Your task to perform on an android device: turn on notifications settings in the gmail app Image 0: 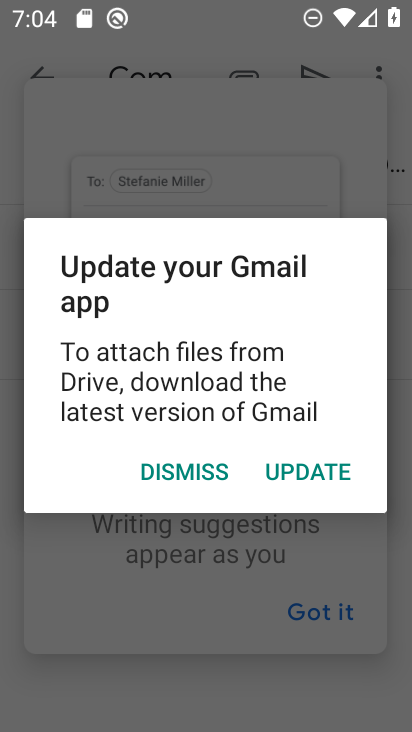
Step 0: press home button
Your task to perform on an android device: turn on notifications settings in the gmail app Image 1: 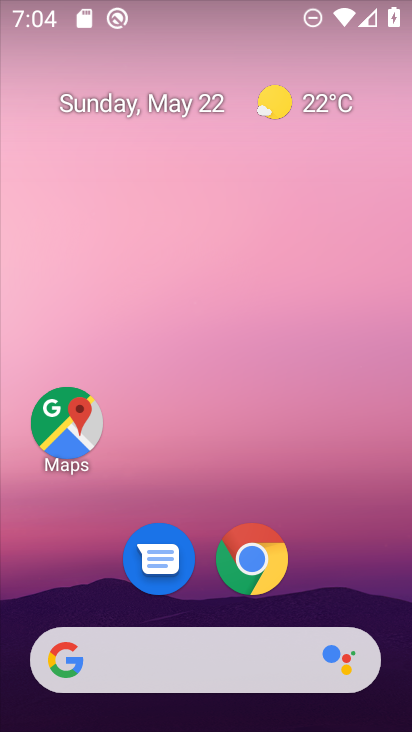
Step 1: drag from (206, 542) to (110, 118)
Your task to perform on an android device: turn on notifications settings in the gmail app Image 2: 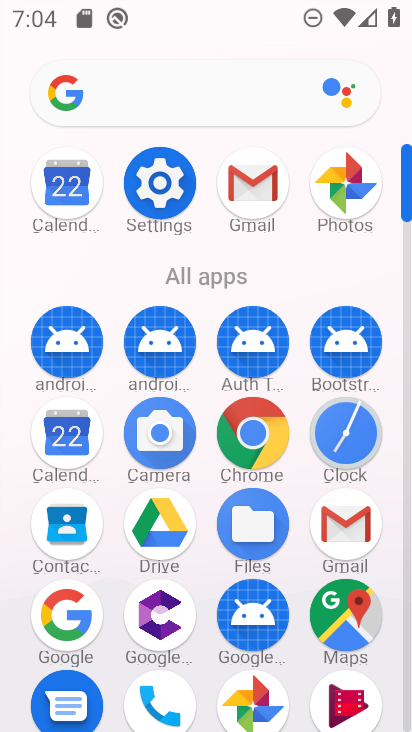
Step 2: click (356, 514)
Your task to perform on an android device: turn on notifications settings in the gmail app Image 3: 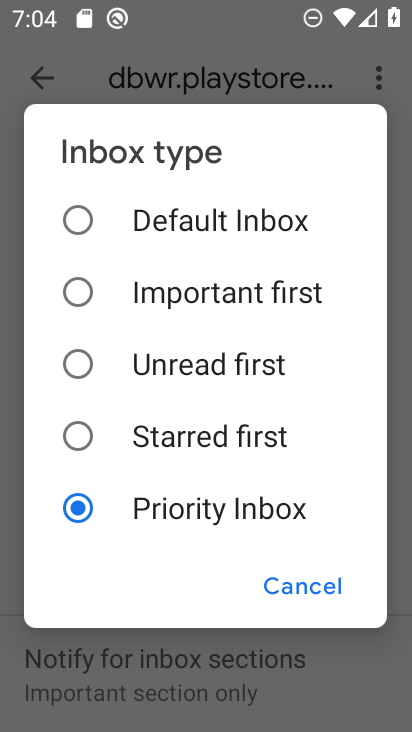
Step 3: click (305, 590)
Your task to perform on an android device: turn on notifications settings in the gmail app Image 4: 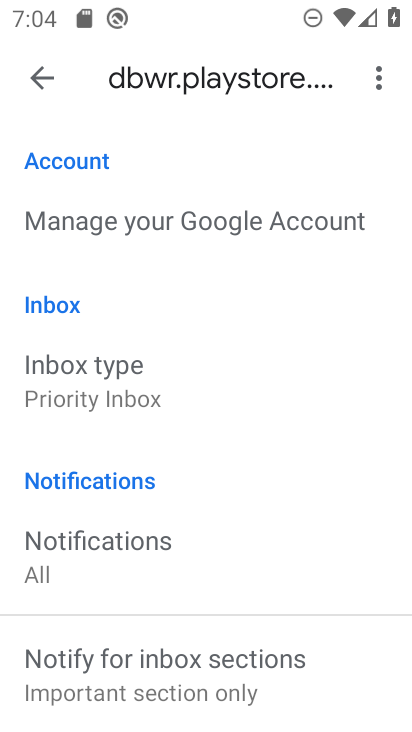
Step 4: click (115, 545)
Your task to perform on an android device: turn on notifications settings in the gmail app Image 5: 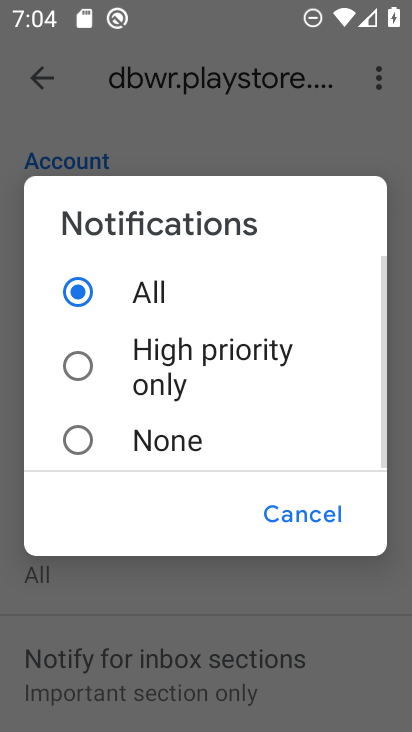
Step 5: task complete